Your task to perform on an android device: stop showing notifications on the lock screen Image 0: 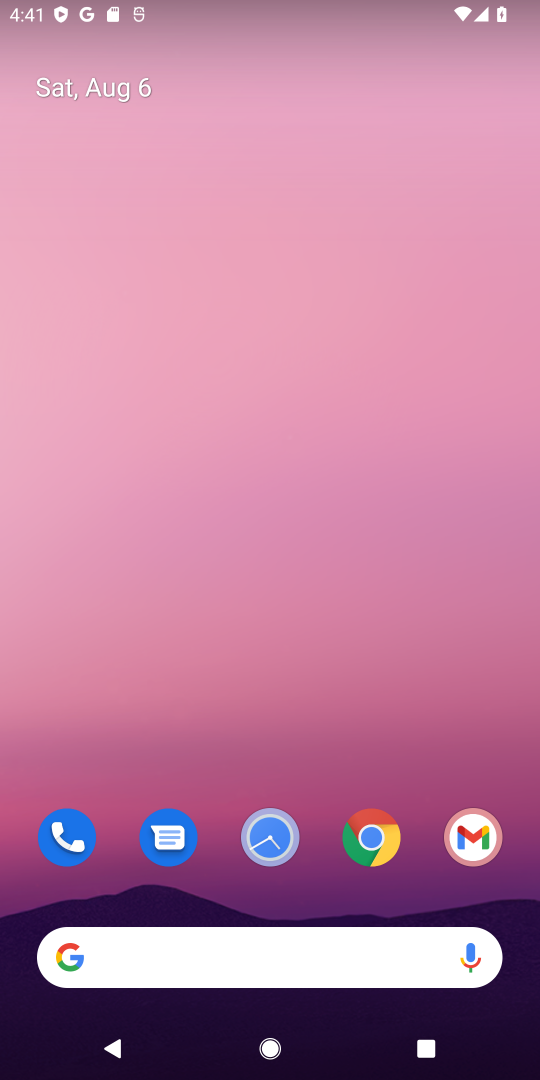
Step 0: drag from (414, 890) to (388, 266)
Your task to perform on an android device: stop showing notifications on the lock screen Image 1: 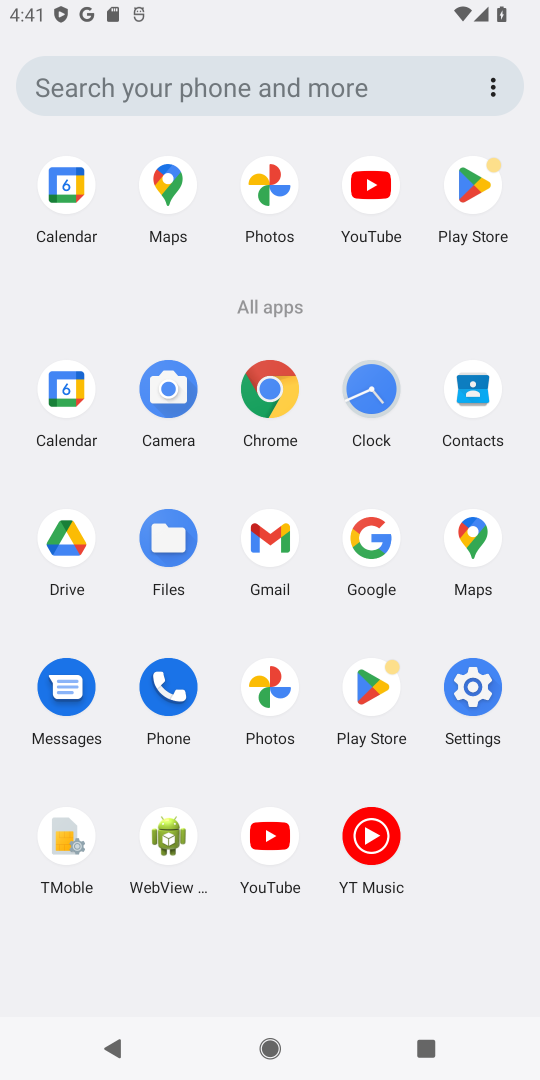
Step 1: click (472, 685)
Your task to perform on an android device: stop showing notifications on the lock screen Image 2: 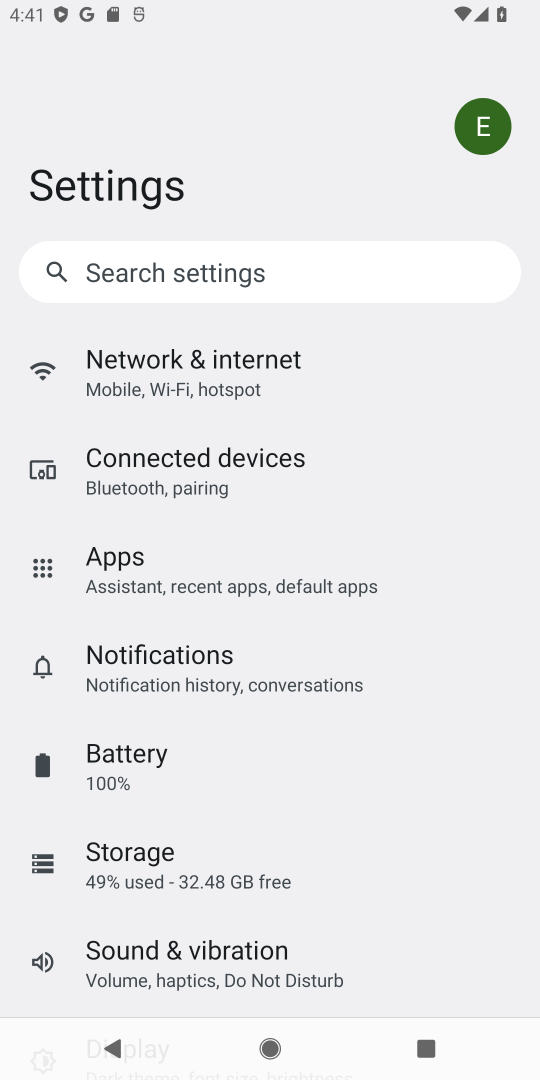
Step 2: click (165, 649)
Your task to perform on an android device: stop showing notifications on the lock screen Image 3: 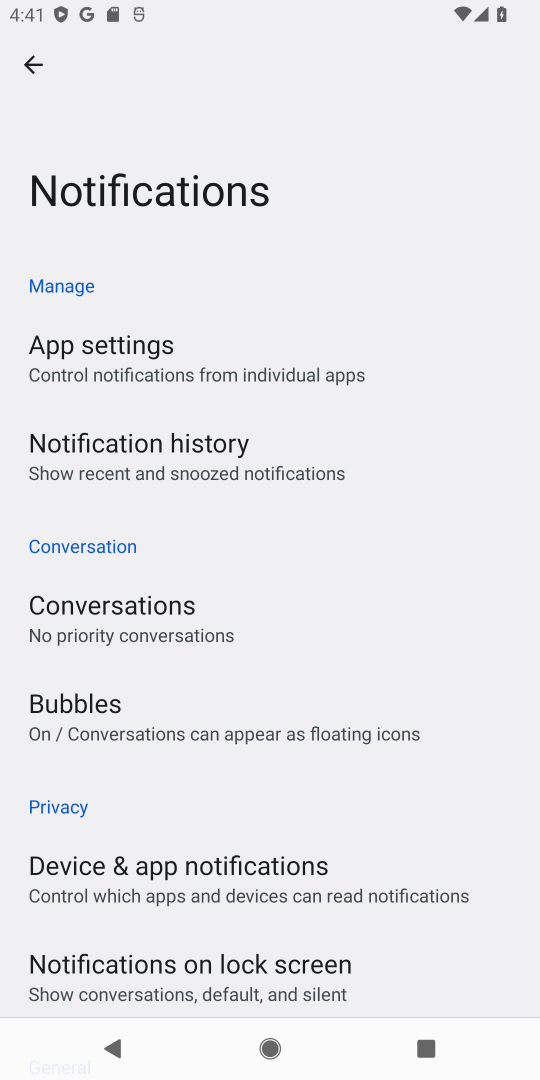
Step 3: drag from (316, 813) to (281, 241)
Your task to perform on an android device: stop showing notifications on the lock screen Image 4: 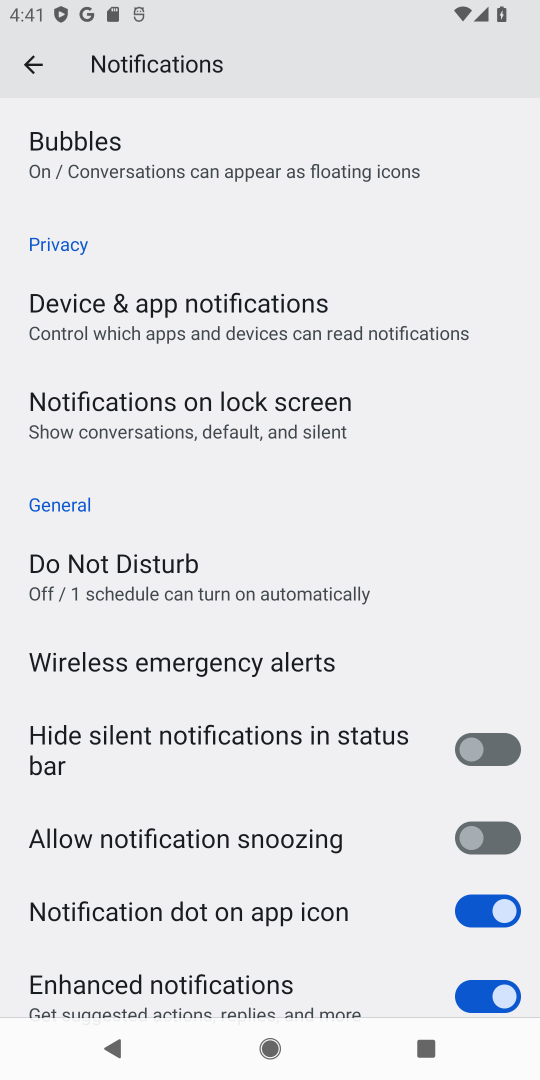
Step 4: drag from (349, 853) to (328, 764)
Your task to perform on an android device: stop showing notifications on the lock screen Image 5: 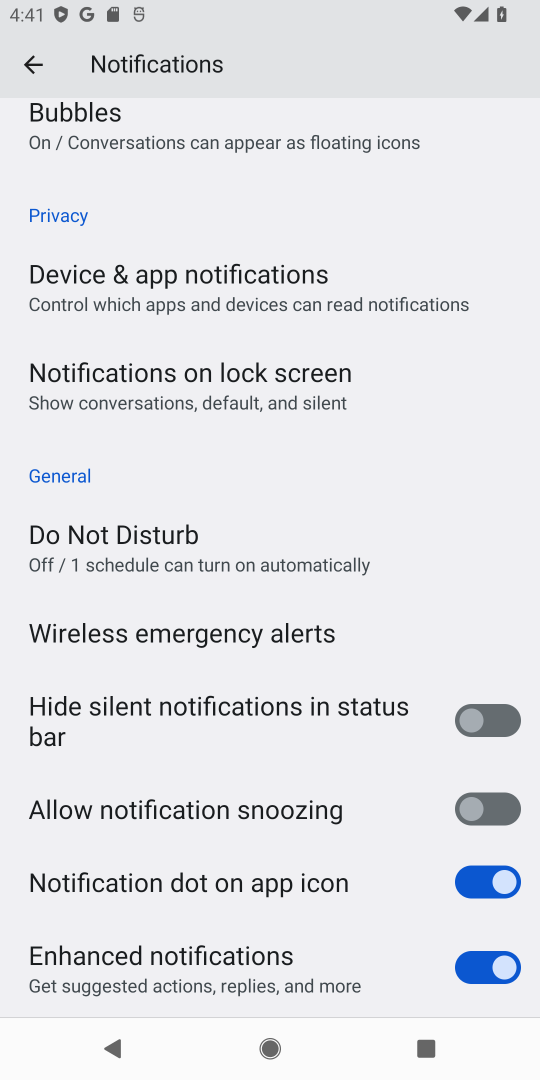
Step 5: click (148, 370)
Your task to perform on an android device: stop showing notifications on the lock screen Image 6: 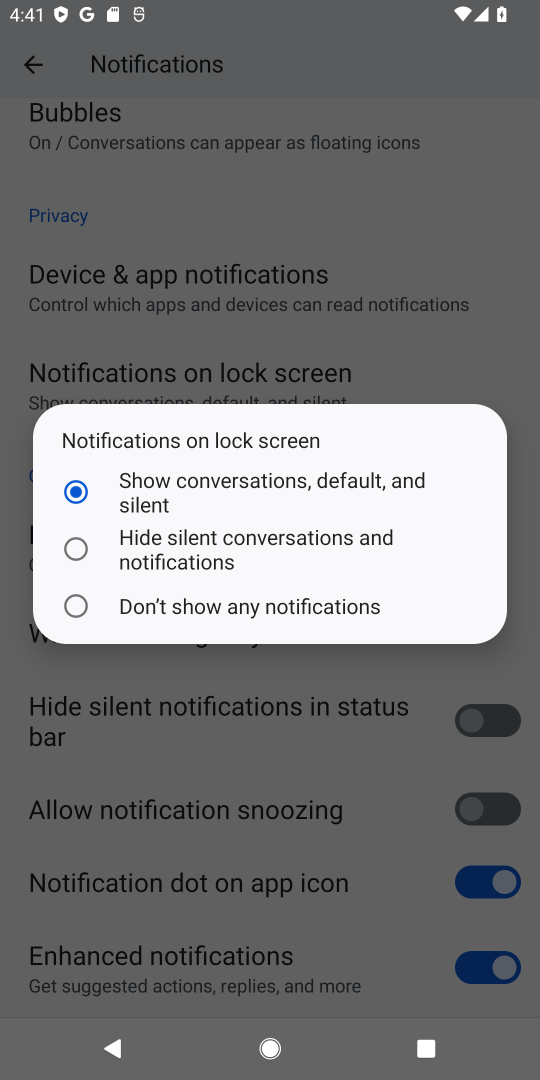
Step 6: click (76, 609)
Your task to perform on an android device: stop showing notifications on the lock screen Image 7: 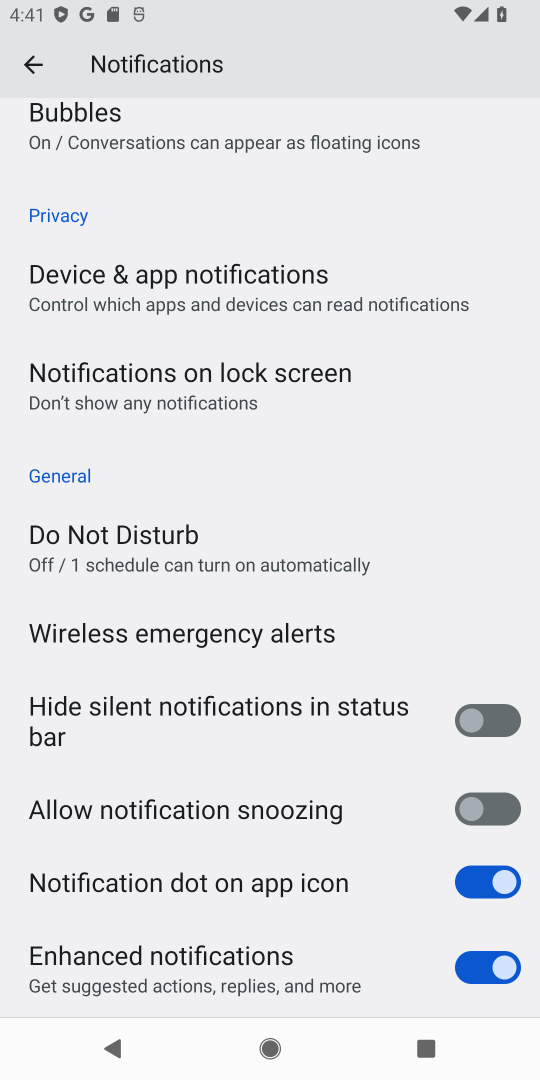
Step 7: task complete